Your task to perform on an android device: change text size in settings app Image 0: 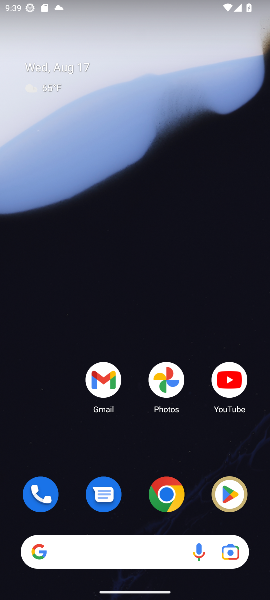
Step 0: drag from (158, 454) to (157, 39)
Your task to perform on an android device: change text size in settings app Image 1: 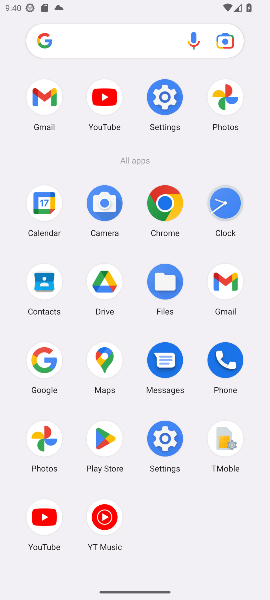
Step 1: click (161, 439)
Your task to perform on an android device: change text size in settings app Image 2: 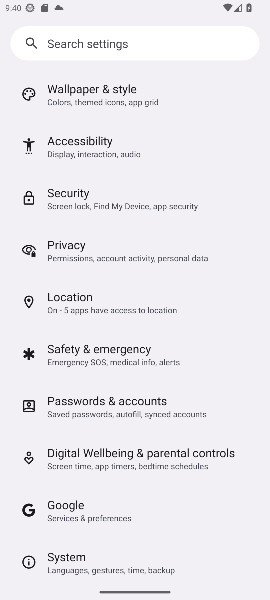
Step 2: drag from (195, 117) to (142, 576)
Your task to perform on an android device: change text size in settings app Image 3: 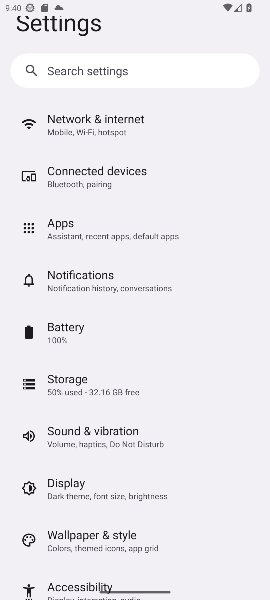
Step 3: click (107, 483)
Your task to perform on an android device: change text size in settings app Image 4: 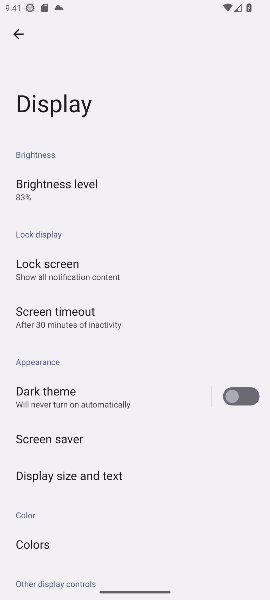
Step 4: drag from (181, 526) to (171, 180)
Your task to perform on an android device: change text size in settings app Image 5: 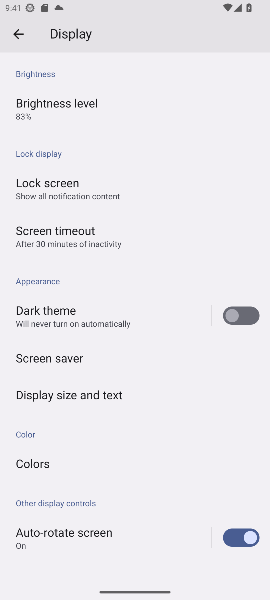
Step 5: click (64, 395)
Your task to perform on an android device: change text size in settings app Image 6: 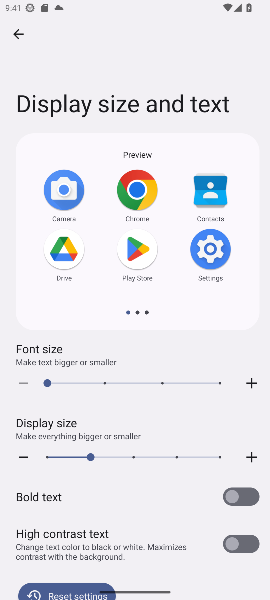
Step 6: click (93, 378)
Your task to perform on an android device: change text size in settings app Image 7: 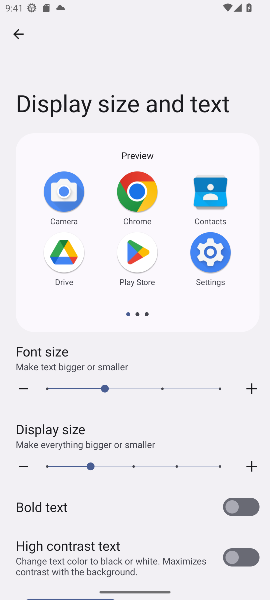
Step 7: task complete